Your task to perform on an android device: What's the weather? Image 0: 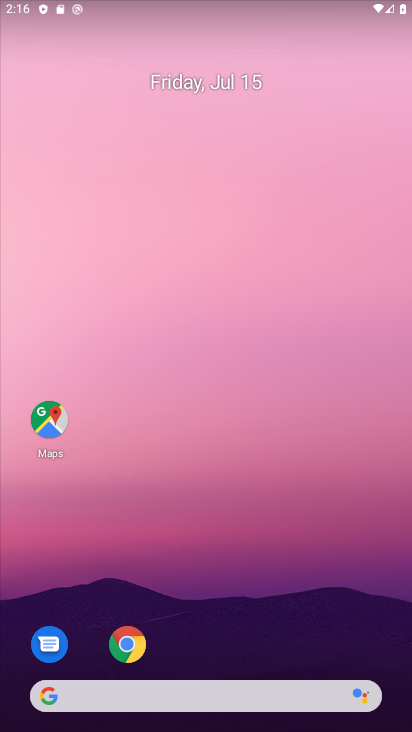
Step 0: drag from (325, 708) to (249, 4)
Your task to perform on an android device: What's the weather? Image 1: 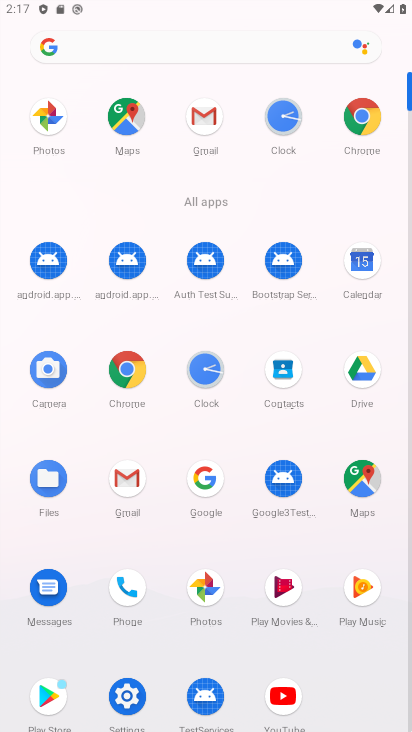
Step 1: click (127, 368)
Your task to perform on an android device: What's the weather? Image 2: 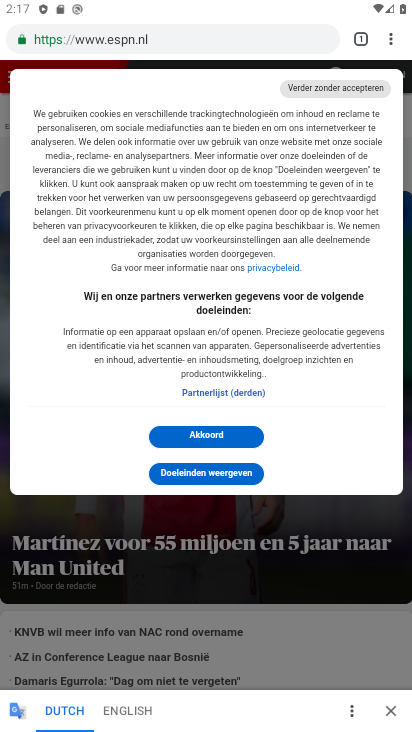
Step 2: click (147, 46)
Your task to perform on an android device: What's the weather? Image 3: 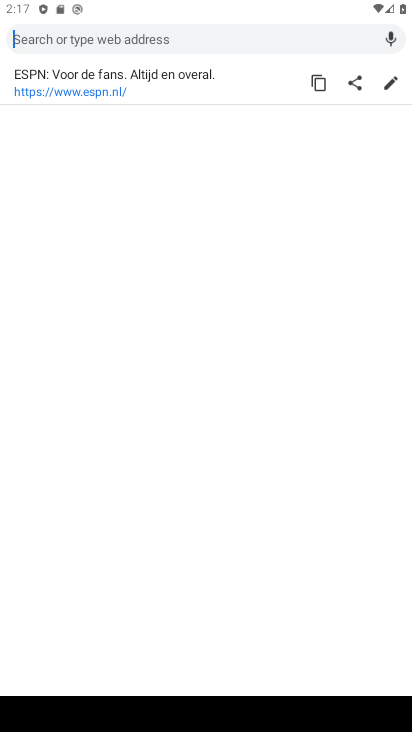
Step 3: type "whats the weather"
Your task to perform on an android device: What's the weather? Image 4: 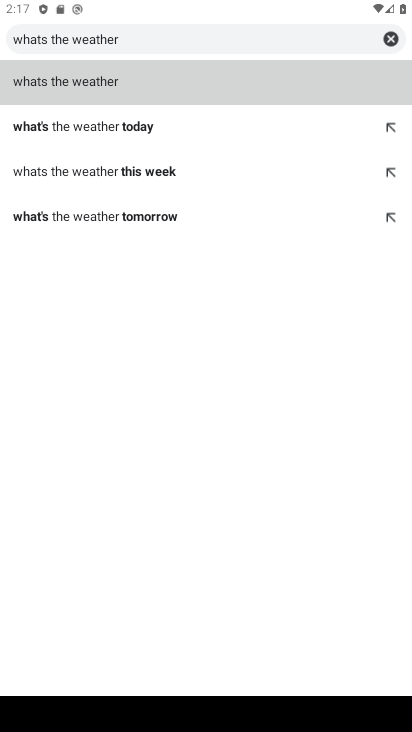
Step 4: click (107, 94)
Your task to perform on an android device: What's the weather? Image 5: 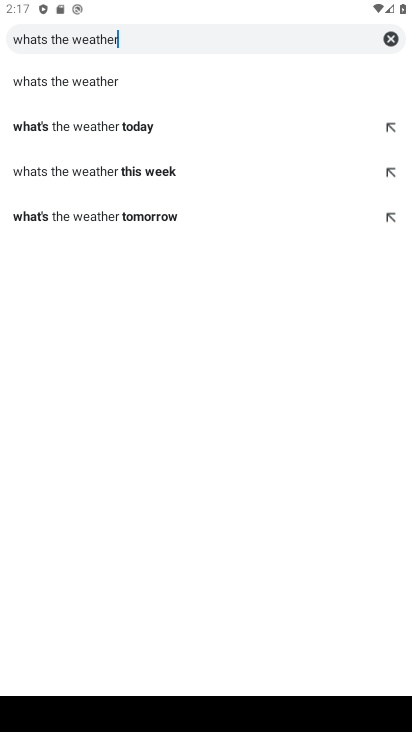
Step 5: click (168, 75)
Your task to perform on an android device: What's the weather? Image 6: 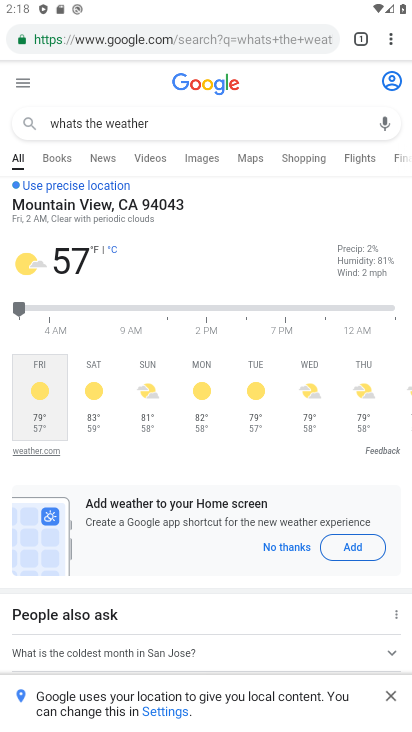
Step 6: task complete